Your task to perform on an android device: Open the web browser Image 0: 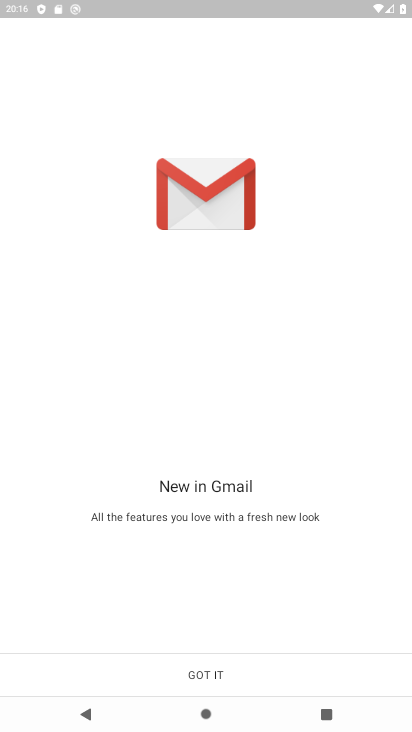
Step 0: press home button
Your task to perform on an android device: Open the web browser Image 1: 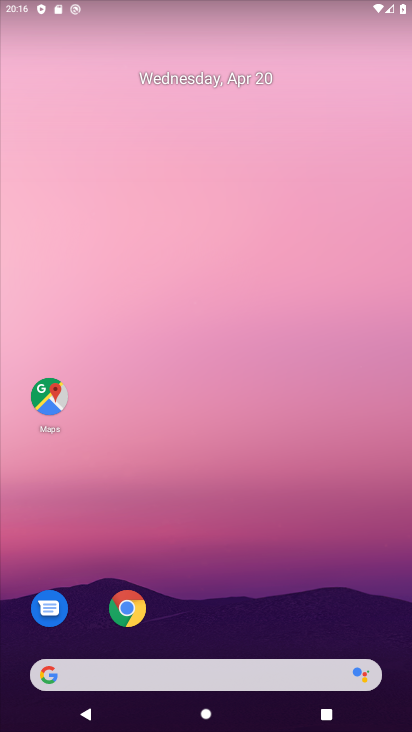
Step 1: drag from (252, 613) to (242, 6)
Your task to perform on an android device: Open the web browser Image 2: 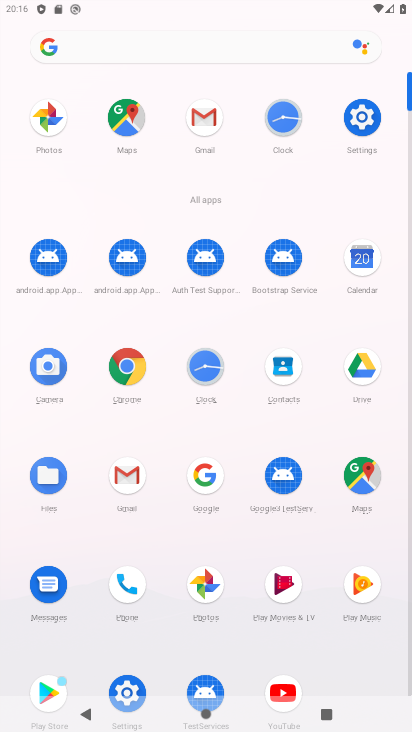
Step 2: click (126, 358)
Your task to perform on an android device: Open the web browser Image 3: 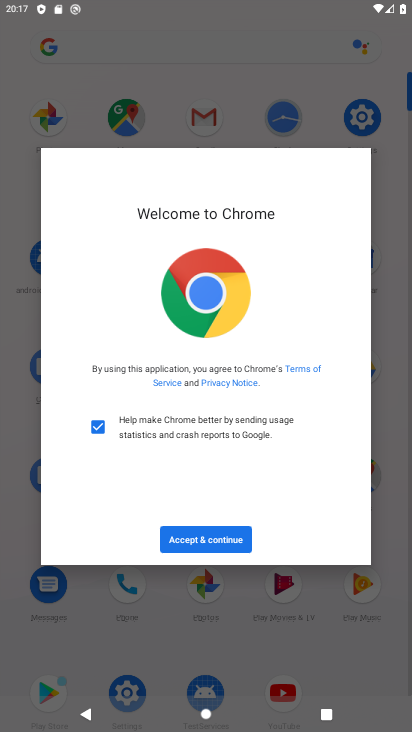
Step 3: click (184, 542)
Your task to perform on an android device: Open the web browser Image 4: 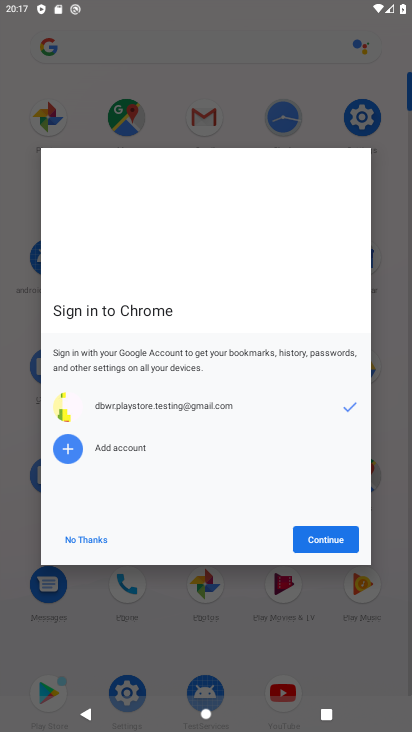
Step 4: click (341, 545)
Your task to perform on an android device: Open the web browser Image 5: 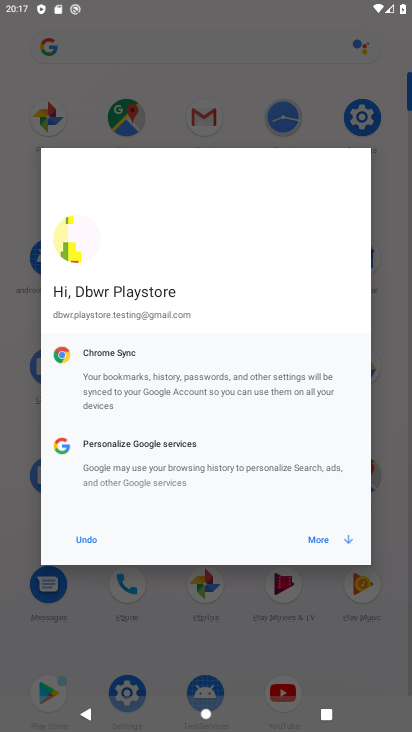
Step 5: click (341, 545)
Your task to perform on an android device: Open the web browser Image 6: 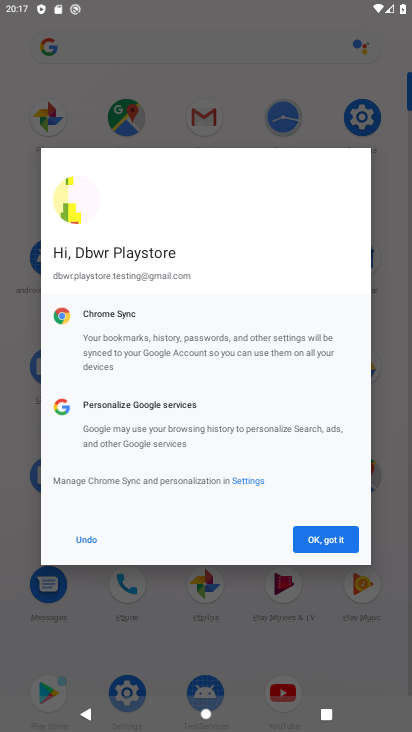
Step 6: click (341, 545)
Your task to perform on an android device: Open the web browser Image 7: 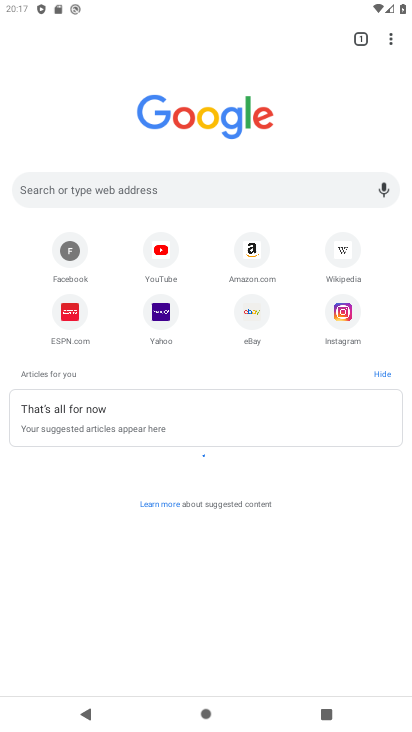
Step 7: click (278, 195)
Your task to perform on an android device: Open the web browser Image 8: 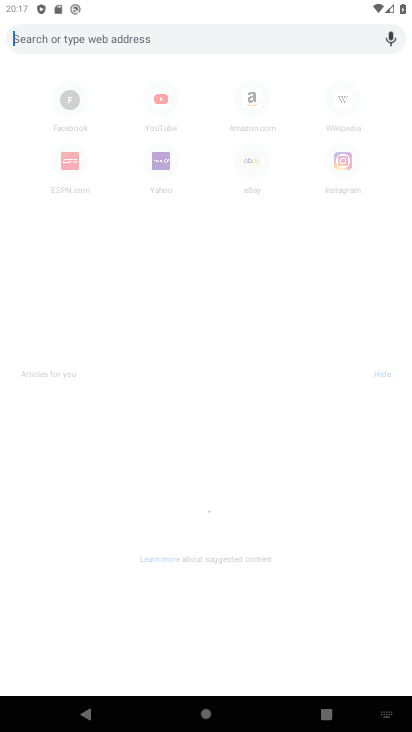
Step 8: click (250, 36)
Your task to perform on an android device: Open the web browser Image 9: 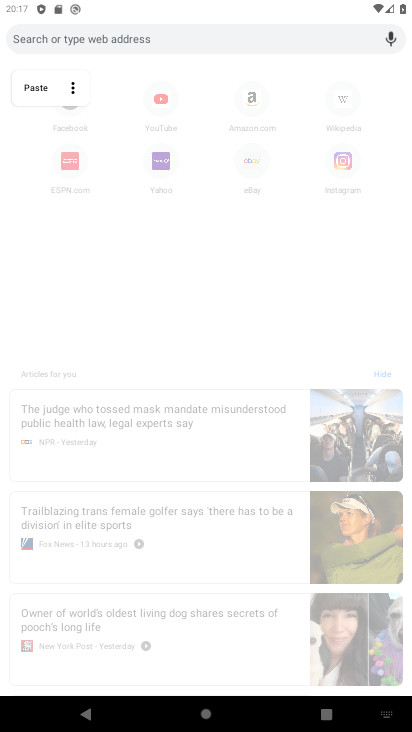
Step 9: type "wed browser"
Your task to perform on an android device: Open the web browser Image 10: 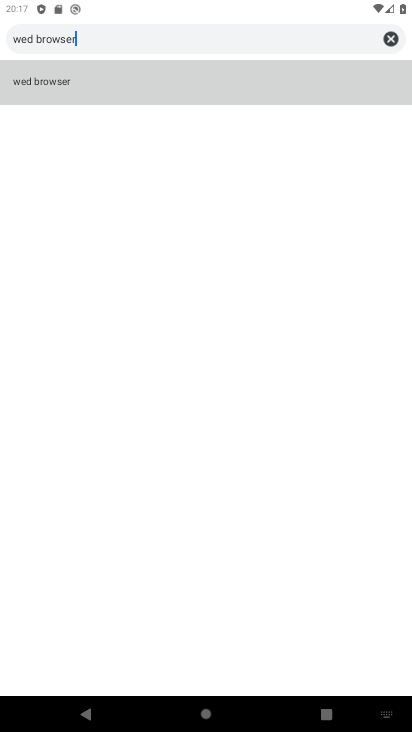
Step 10: click (58, 75)
Your task to perform on an android device: Open the web browser Image 11: 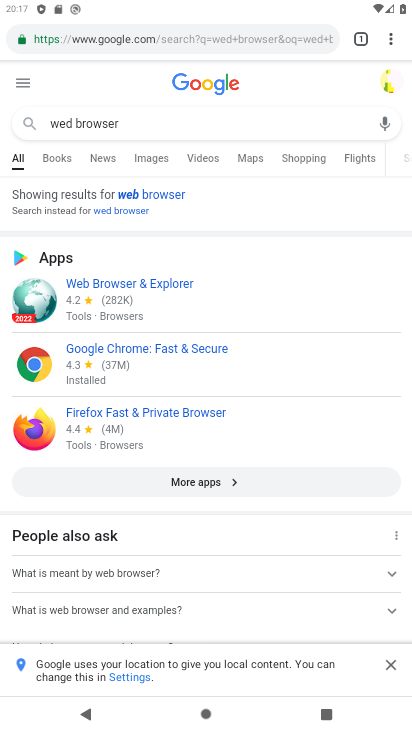
Step 11: task complete